Your task to perform on an android device: clear history in the chrome app Image 0: 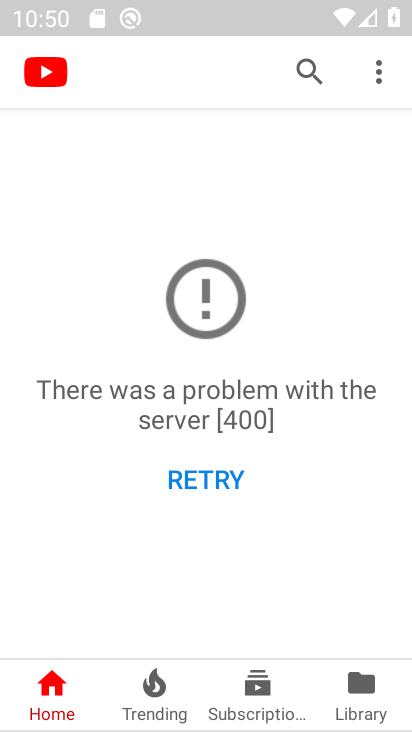
Step 0: press home button
Your task to perform on an android device: clear history in the chrome app Image 1: 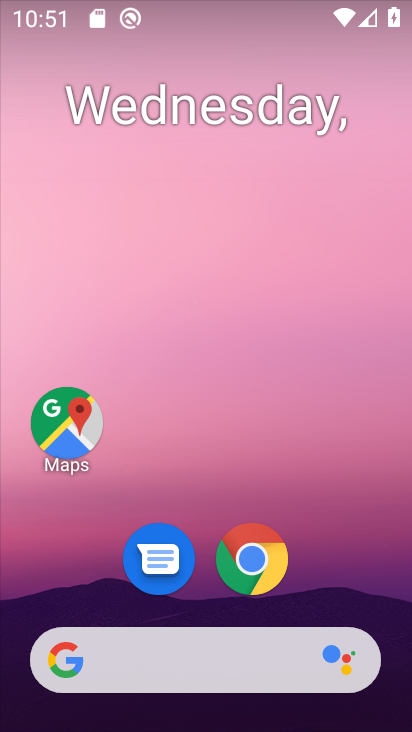
Step 1: drag from (253, 681) to (291, 161)
Your task to perform on an android device: clear history in the chrome app Image 2: 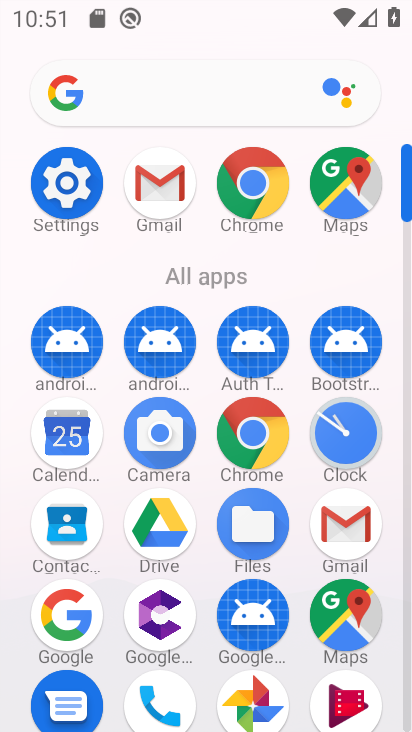
Step 2: click (260, 195)
Your task to perform on an android device: clear history in the chrome app Image 3: 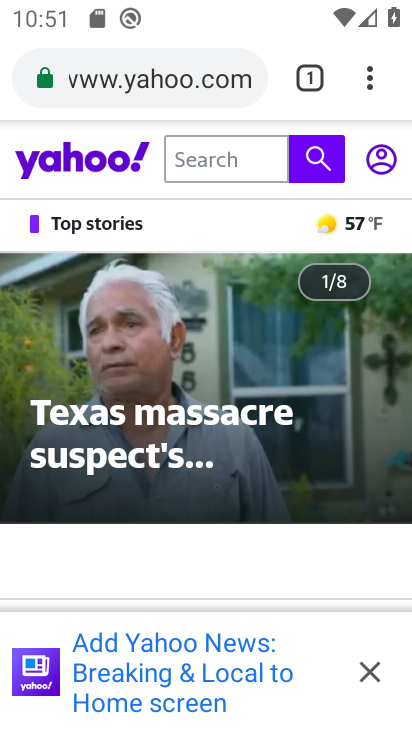
Step 3: click (376, 98)
Your task to perform on an android device: clear history in the chrome app Image 4: 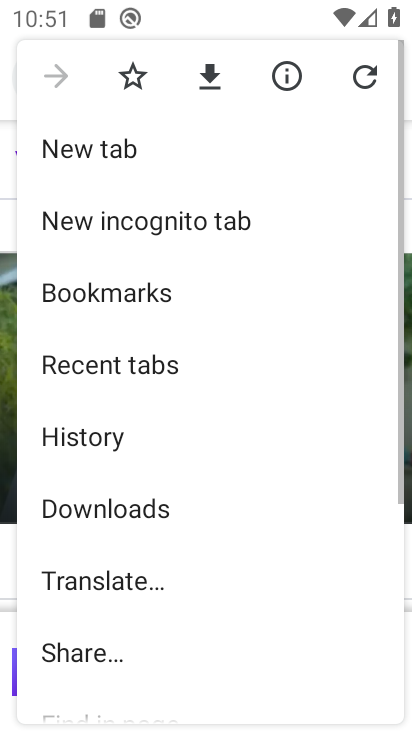
Step 4: drag from (156, 587) to (206, 326)
Your task to perform on an android device: clear history in the chrome app Image 5: 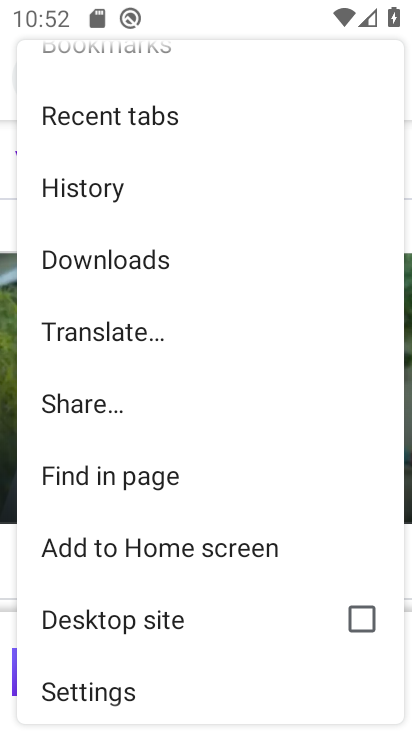
Step 5: click (94, 684)
Your task to perform on an android device: clear history in the chrome app Image 6: 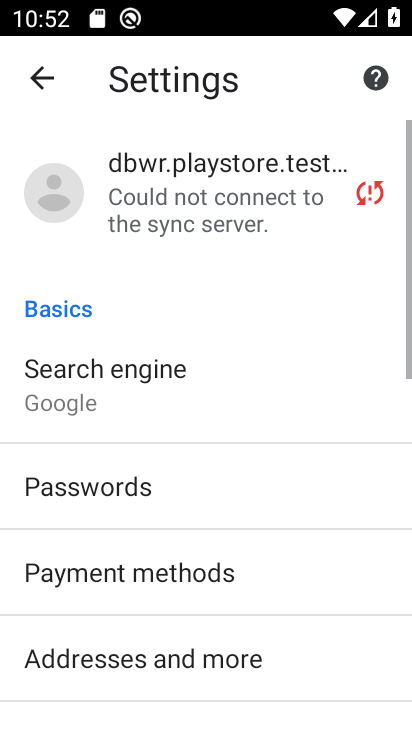
Step 6: drag from (194, 590) to (230, 332)
Your task to perform on an android device: clear history in the chrome app Image 7: 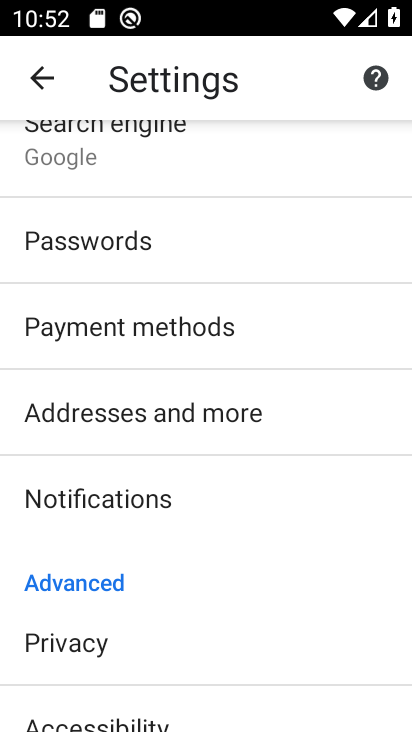
Step 7: drag from (180, 544) to (220, 337)
Your task to perform on an android device: clear history in the chrome app Image 8: 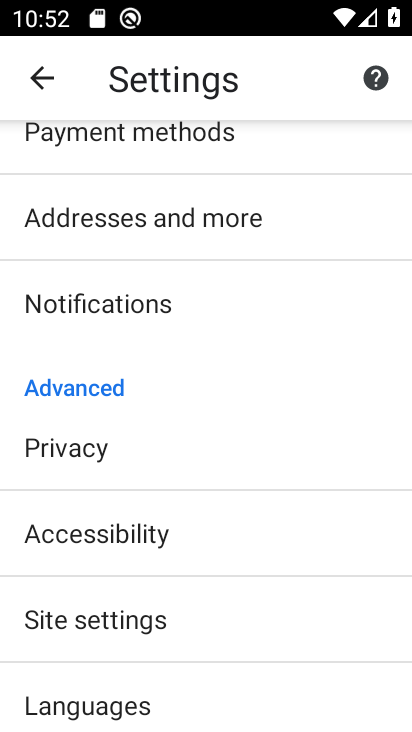
Step 8: click (66, 452)
Your task to perform on an android device: clear history in the chrome app Image 9: 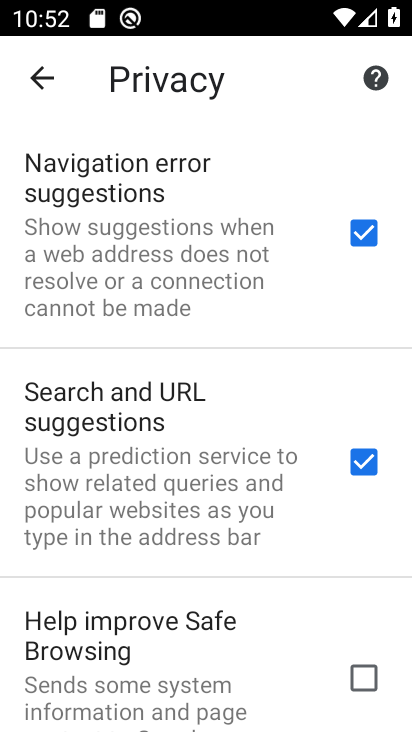
Step 9: drag from (116, 597) to (190, 357)
Your task to perform on an android device: clear history in the chrome app Image 10: 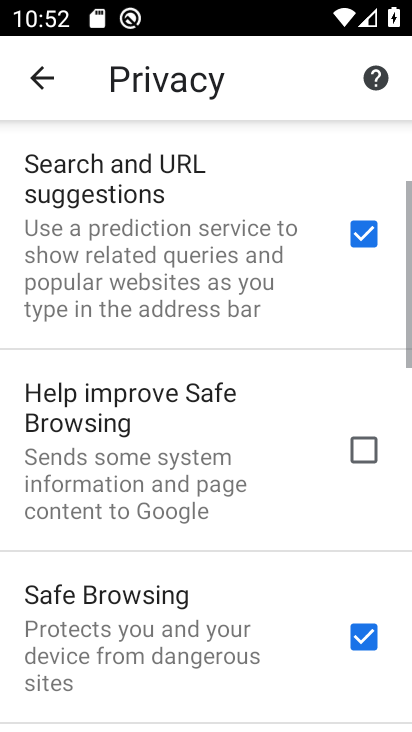
Step 10: drag from (180, 625) to (244, 256)
Your task to perform on an android device: clear history in the chrome app Image 11: 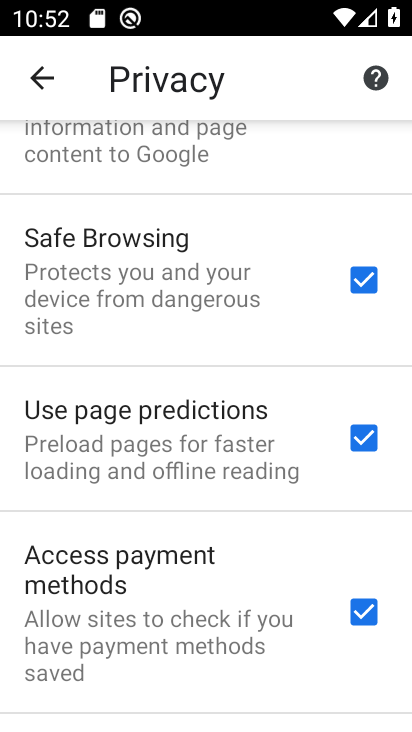
Step 11: drag from (197, 582) to (236, 290)
Your task to perform on an android device: clear history in the chrome app Image 12: 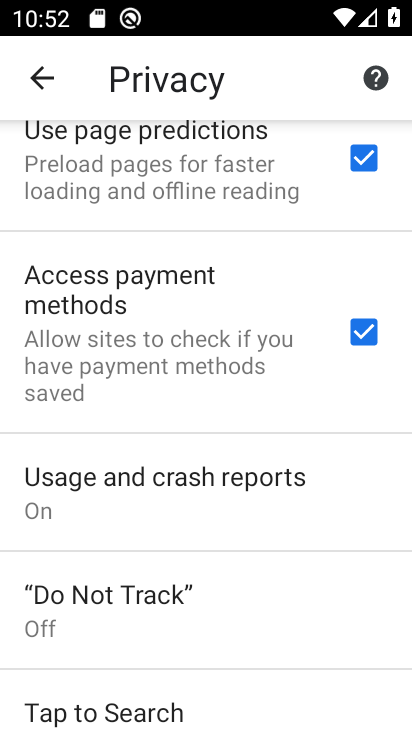
Step 12: drag from (158, 623) to (211, 318)
Your task to perform on an android device: clear history in the chrome app Image 13: 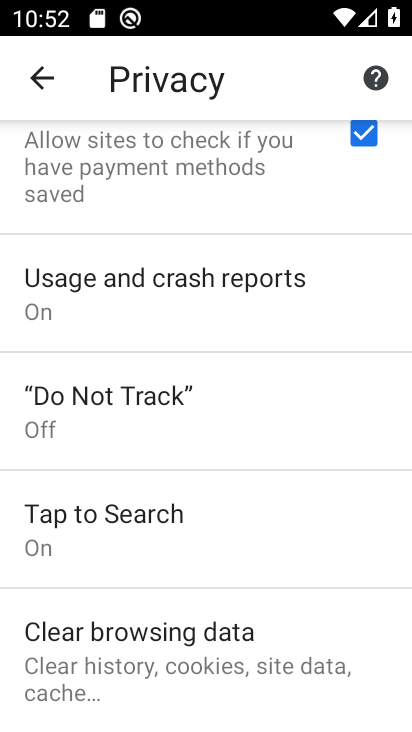
Step 13: click (174, 638)
Your task to perform on an android device: clear history in the chrome app Image 14: 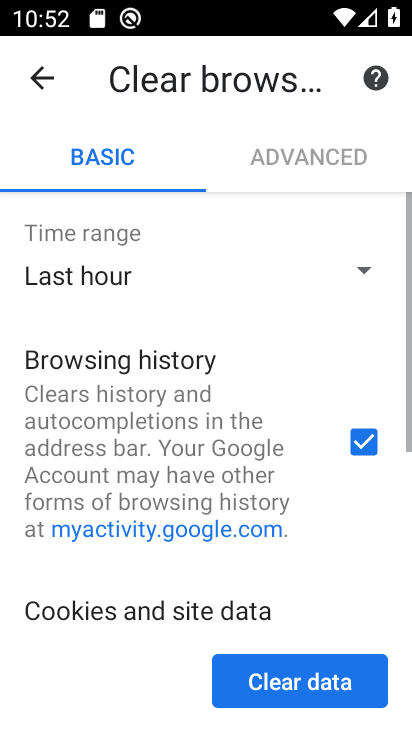
Step 14: click (304, 671)
Your task to perform on an android device: clear history in the chrome app Image 15: 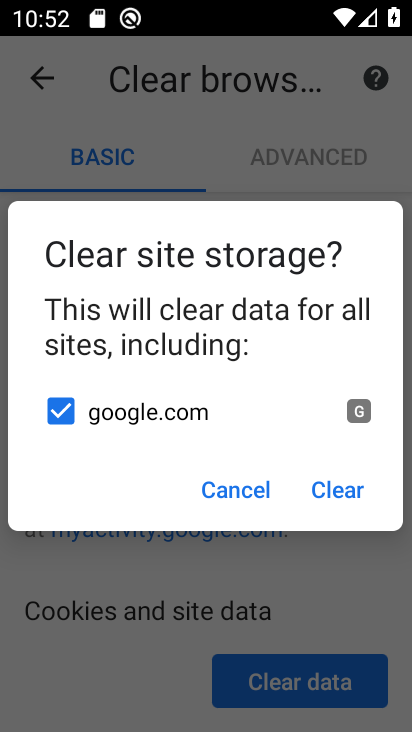
Step 15: task complete